Your task to perform on an android device: change text size in settings app Image 0: 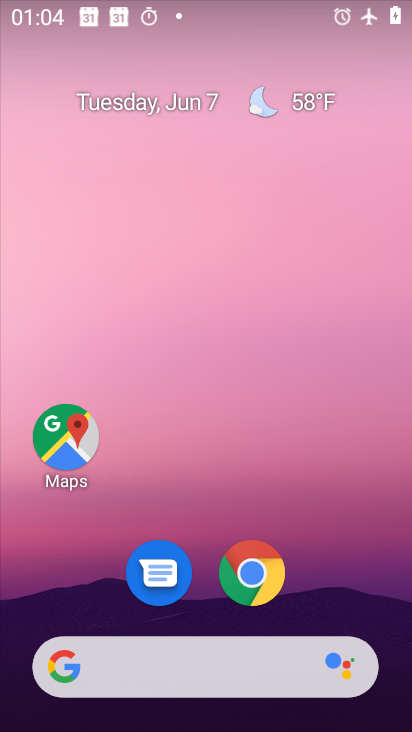
Step 0: drag from (404, 606) to (262, 136)
Your task to perform on an android device: change text size in settings app Image 1: 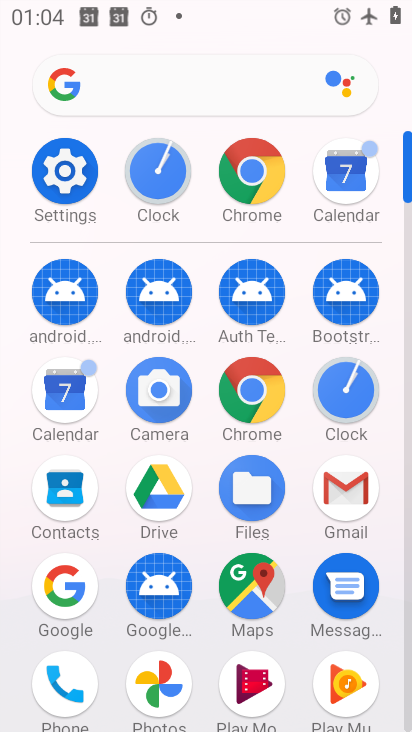
Step 1: click (76, 216)
Your task to perform on an android device: change text size in settings app Image 2: 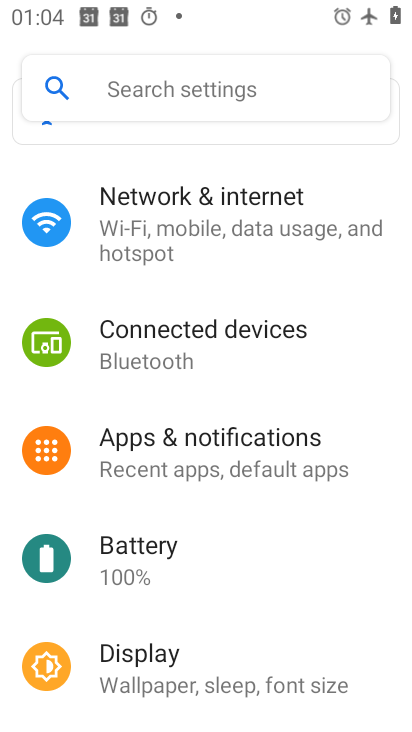
Step 2: drag from (282, 560) to (239, 142)
Your task to perform on an android device: change text size in settings app Image 3: 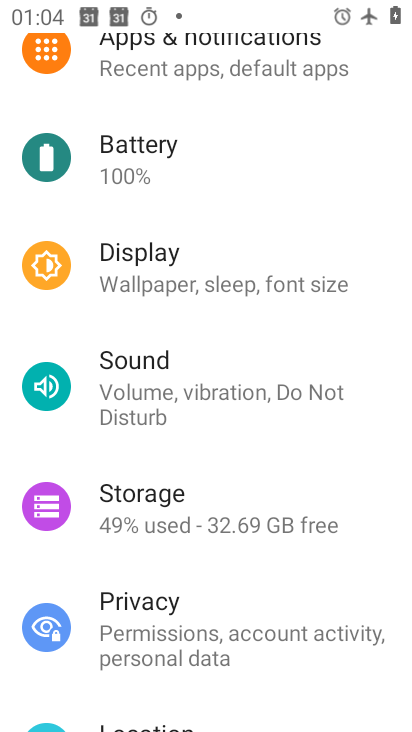
Step 3: click (122, 283)
Your task to perform on an android device: change text size in settings app Image 4: 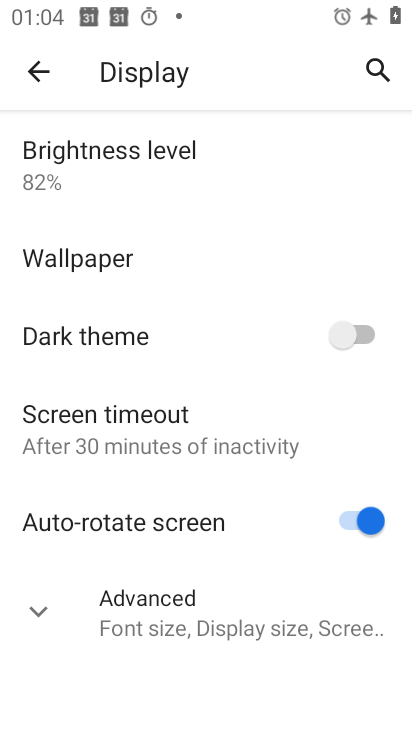
Step 4: click (122, 624)
Your task to perform on an android device: change text size in settings app Image 5: 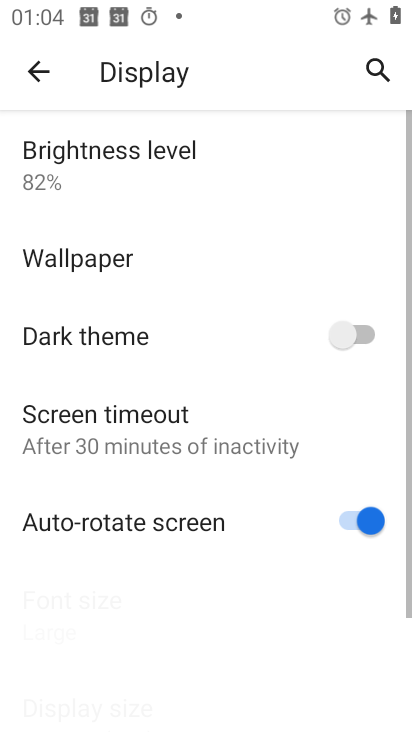
Step 5: click (122, 624)
Your task to perform on an android device: change text size in settings app Image 6: 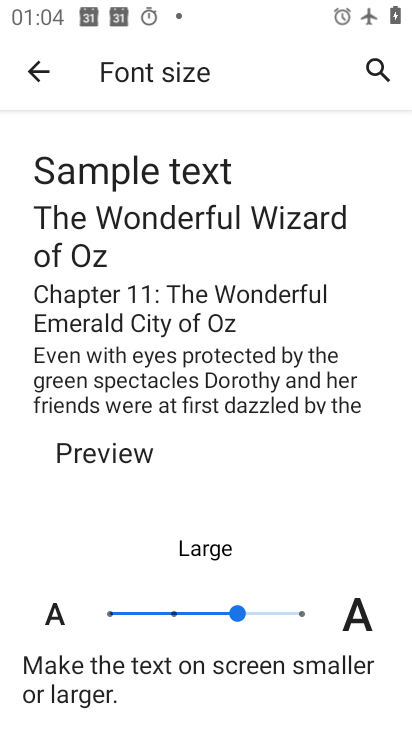
Step 6: click (64, 598)
Your task to perform on an android device: change text size in settings app Image 7: 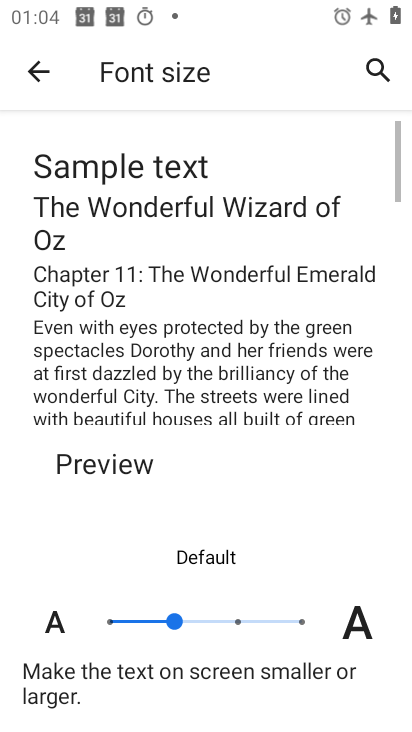
Step 7: task complete